Your task to perform on an android device: check data usage Image 0: 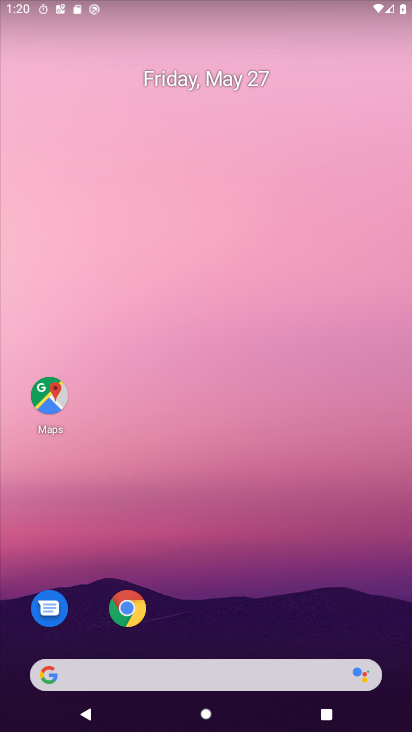
Step 0: click (288, 366)
Your task to perform on an android device: check data usage Image 1: 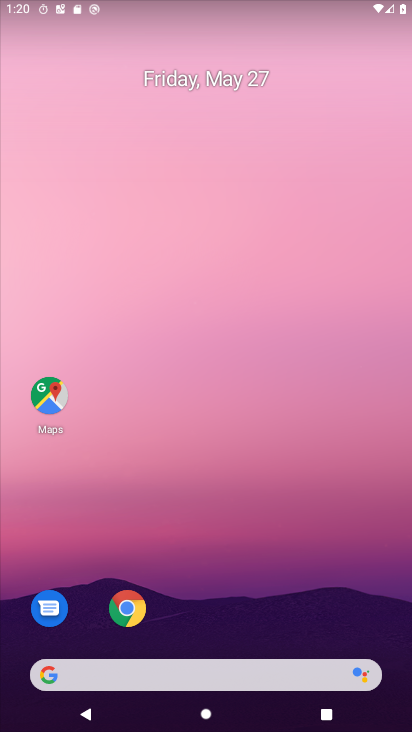
Step 1: drag from (399, 712) to (320, 118)
Your task to perform on an android device: check data usage Image 2: 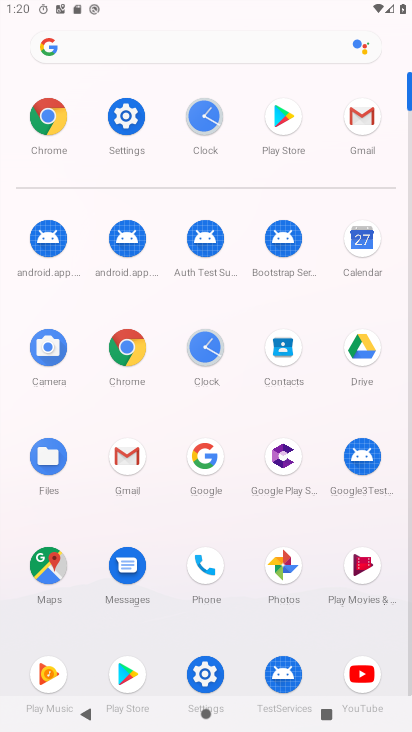
Step 2: click (126, 120)
Your task to perform on an android device: check data usage Image 3: 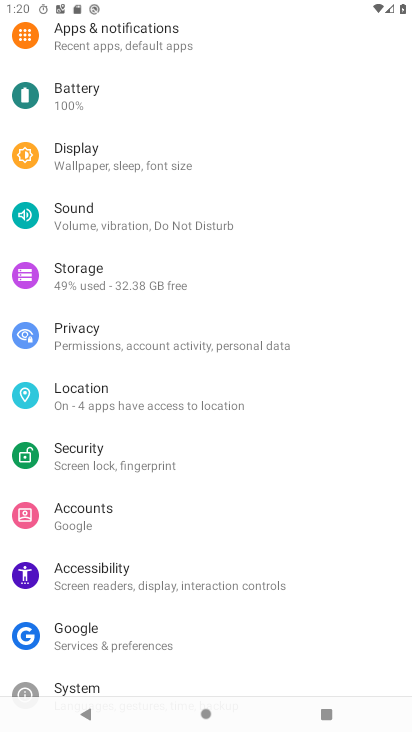
Step 3: drag from (280, 126) to (315, 500)
Your task to perform on an android device: check data usage Image 4: 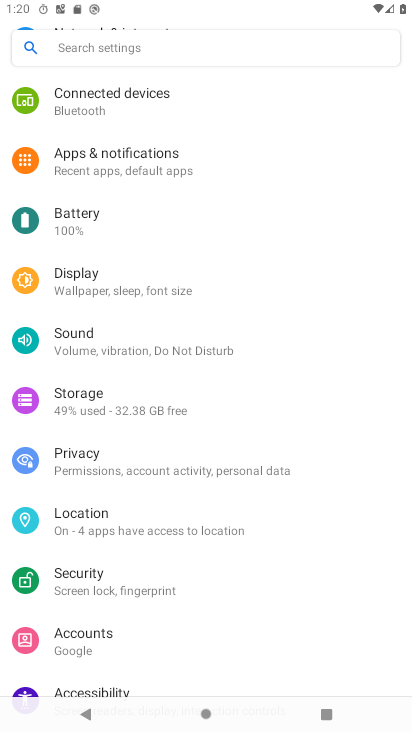
Step 4: drag from (276, 148) to (283, 658)
Your task to perform on an android device: check data usage Image 5: 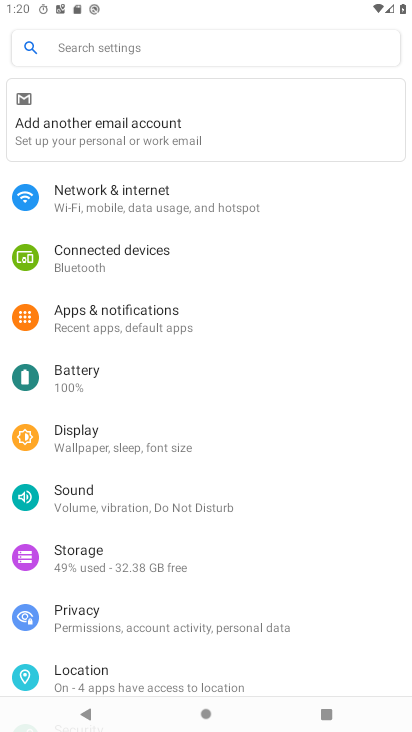
Step 5: click (96, 197)
Your task to perform on an android device: check data usage Image 6: 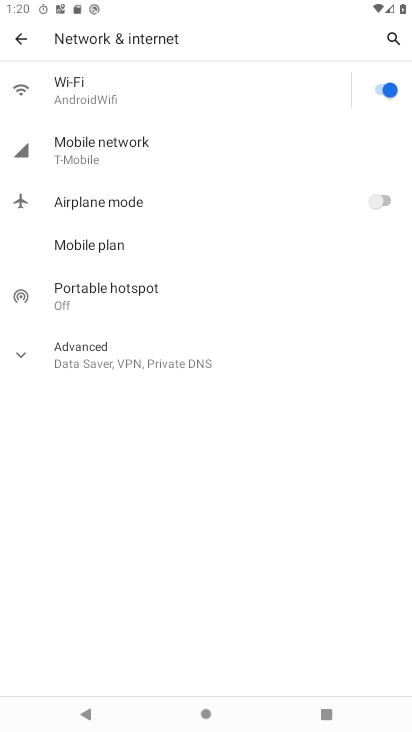
Step 6: click (86, 149)
Your task to perform on an android device: check data usage Image 7: 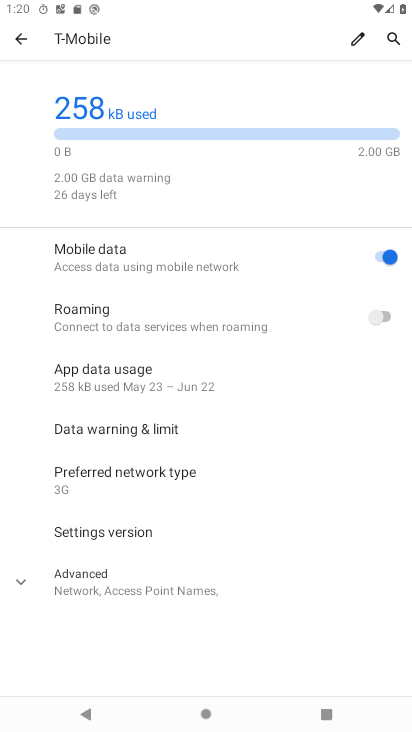
Step 7: task complete